Your task to perform on an android device: open chrome privacy settings Image 0: 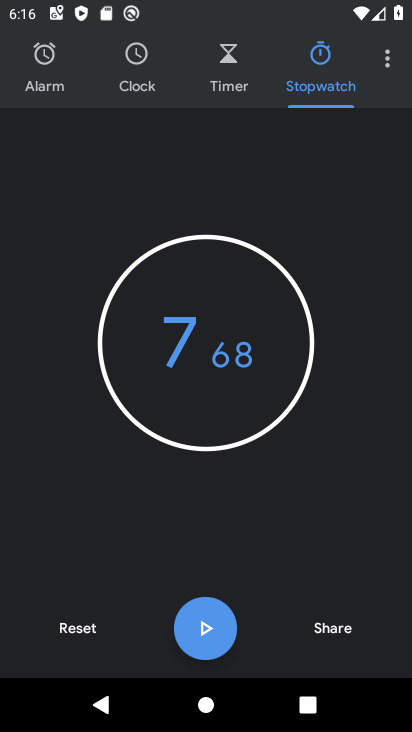
Step 0: press home button
Your task to perform on an android device: open chrome privacy settings Image 1: 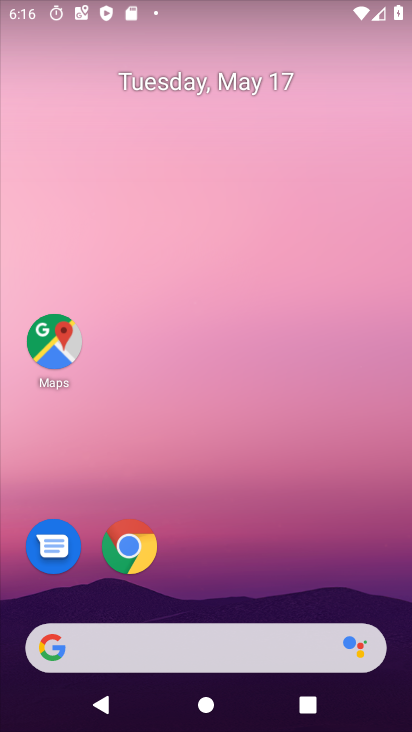
Step 1: drag from (215, 577) to (337, 17)
Your task to perform on an android device: open chrome privacy settings Image 2: 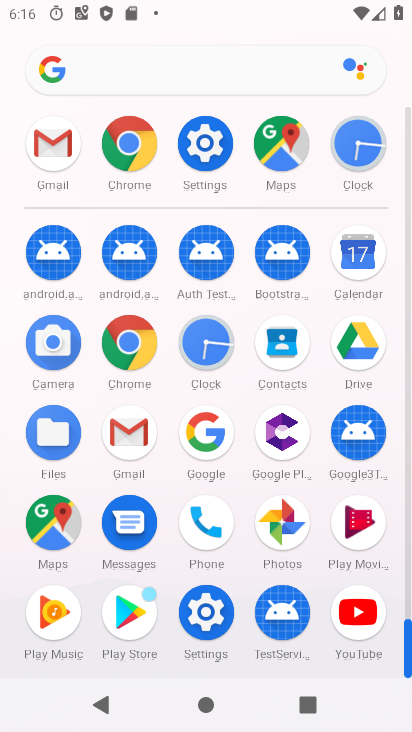
Step 2: click (133, 149)
Your task to perform on an android device: open chrome privacy settings Image 3: 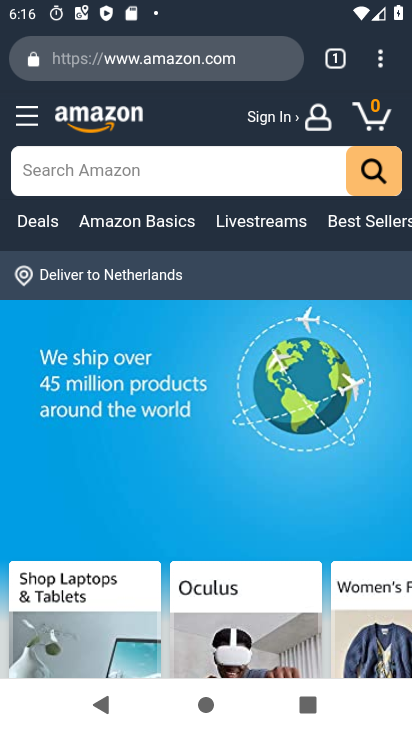
Step 3: click (388, 55)
Your task to perform on an android device: open chrome privacy settings Image 4: 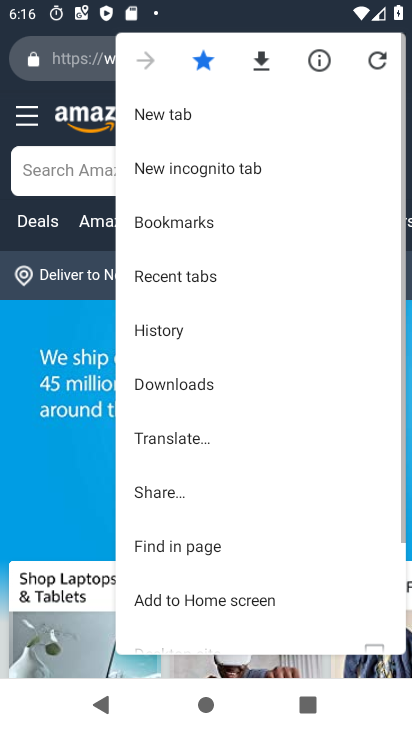
Step 4: click (380, 55)
Your task to perform on an android device: open chrome privacy settings Image 5: 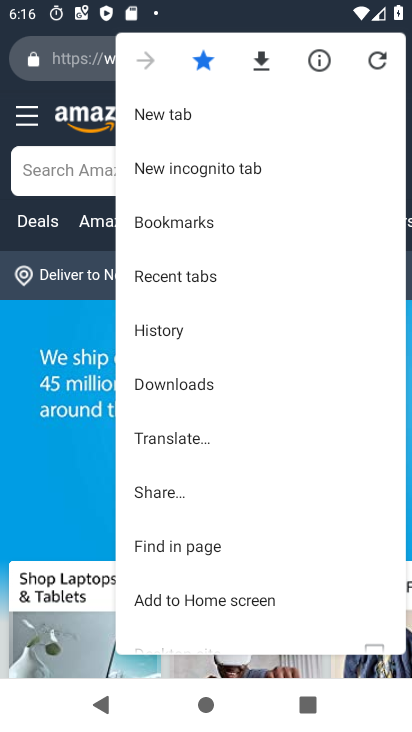
Step 5: drag from (150, 533) to (198, 214)
Your task to perform on an android device: open chrome privacy settings Image 6: 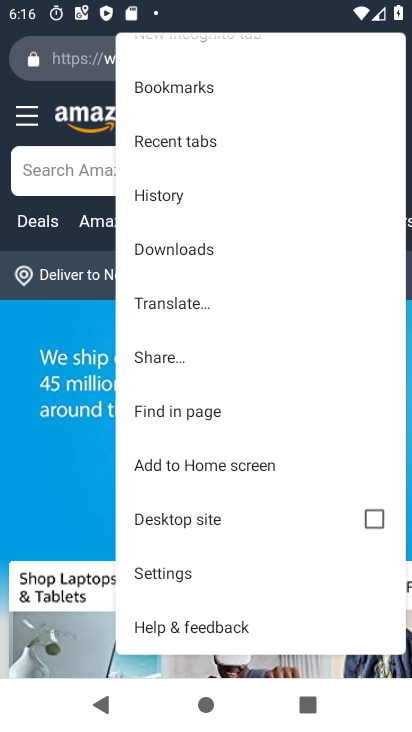
Step 6: click (223, 578)
Your task to perform on an android device: open chrome privacy settings Image 7: 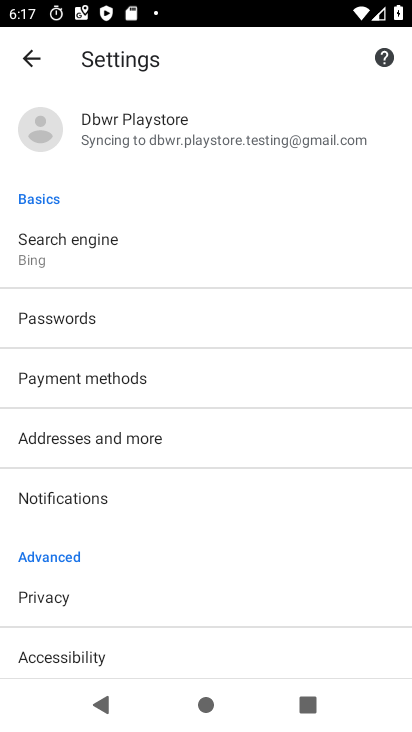
Step 7: click (54, 615)
Your task to perform on an android device: open chrome privacy settings Image 8: 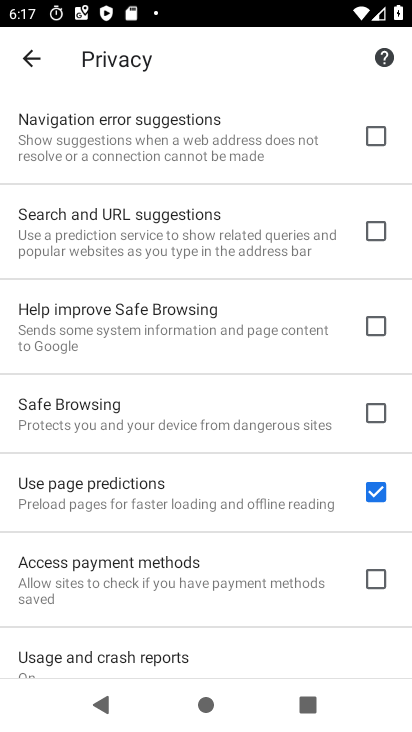
Step 8: task complete